Your task to perform on an android device: Is it going to rain this weekend? Image 0: 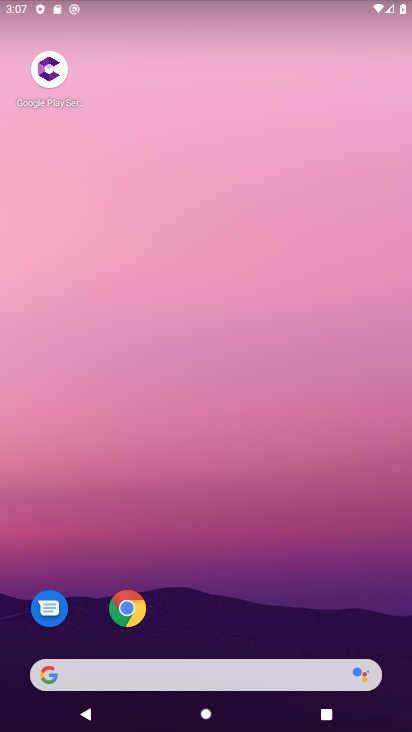
Step 0: drag from (211, 579) to (259, 220)
Your task to perform on an android device: Is it going to rain this weekend? Image 1: 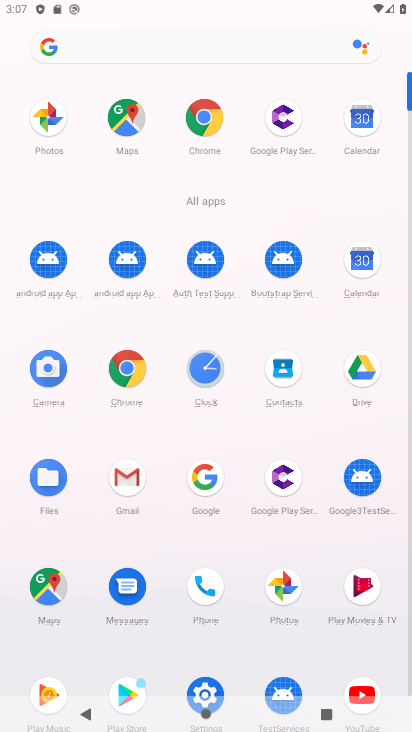
Step 1: click (203, 115)
Your task to perform on an android device: Is it going to rain this weekend? Image 2: 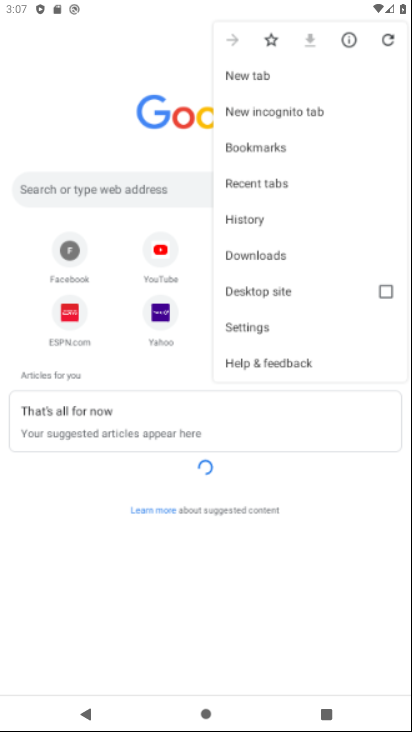
Step 2: click (72, 117)
Your task to perform on an android device: Is it going to rain this weekend? Image 3: 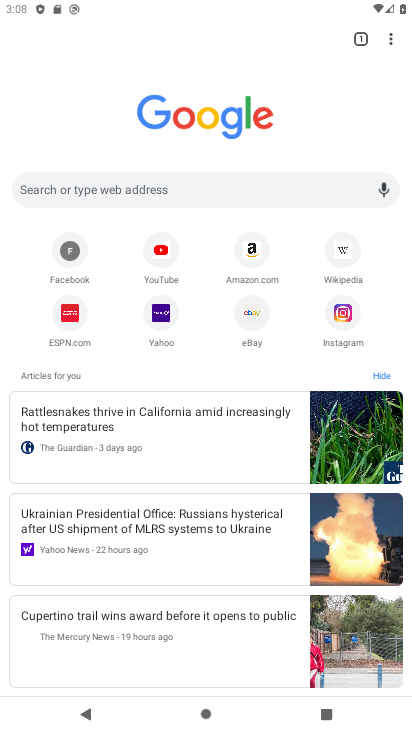
Step 3: click (166, 183)
Your task to perform on an android device: Is it going to rain this weekend? Image 4: 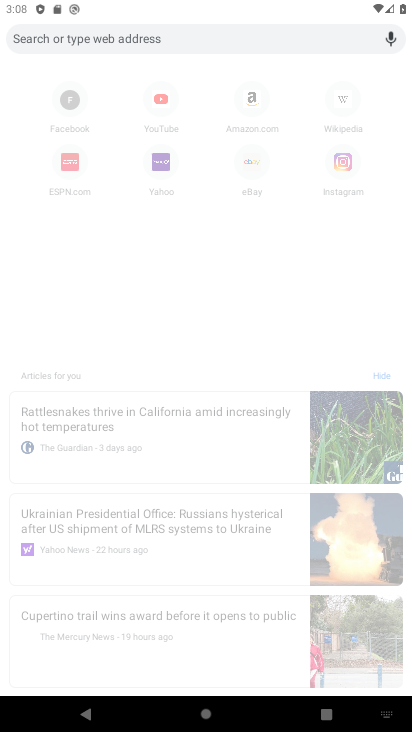
Step 4: type "Is it going to rain this weekend?"
Your task to perform on an android device: Is it going to rain this weekend? Image 5: 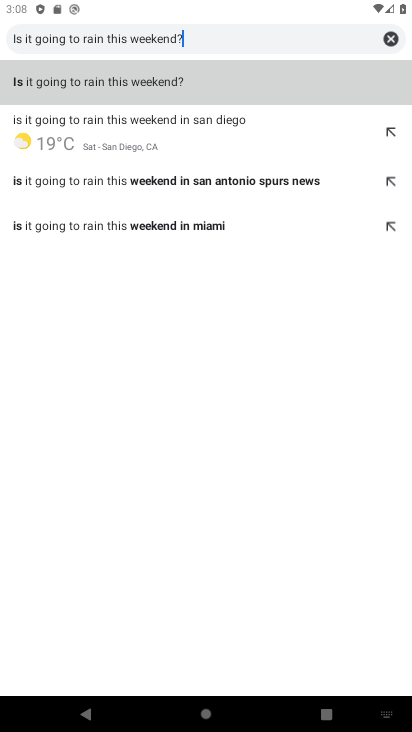
Step 5: click (164, 72)
Your task to perform on an android device: Is it going to rain this weekend? Image 6: 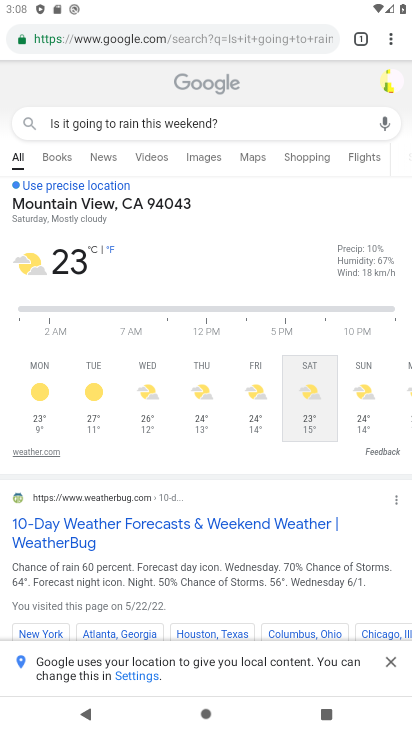
Step 6: task complete